Your task to perform on an android device: uninstall "Paramount+ | Peak Streaming" Image 0: 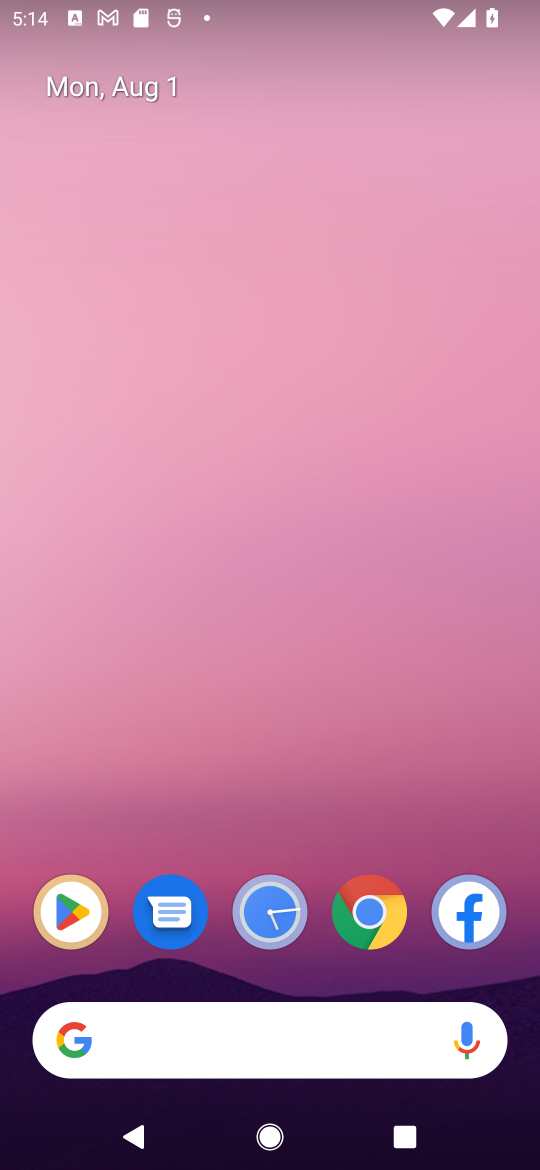
Step 0: click (69, 941)
Your task to perform on an android device: uninstall "Paramount+ | Peak Streaming" Image 1: 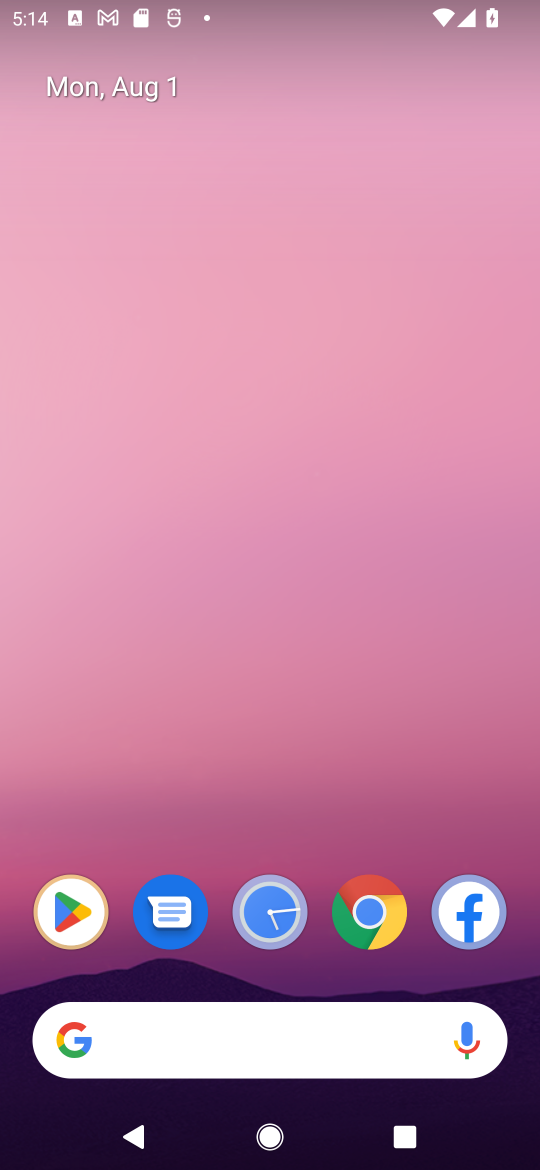
Step 1: click (69, 926)
Your task to perform on an android device: uninstall "Paramount+ | Peak Streaming" Image 2: 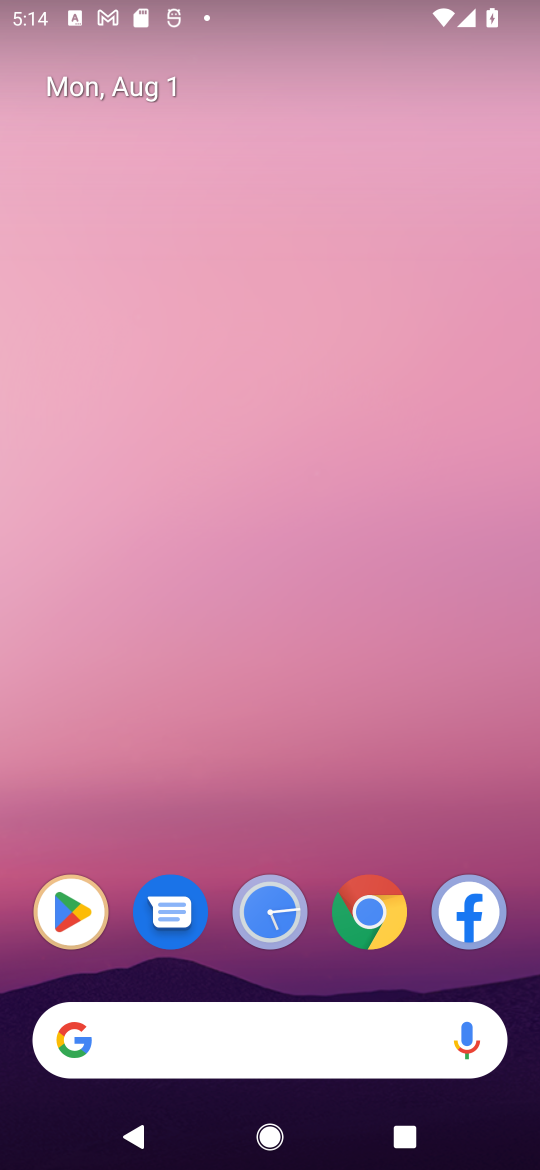
Step 2: click (69, 926)
Your task to perform on an android device: uninstall "Paramount+ | Peak Streaming" Image 3: 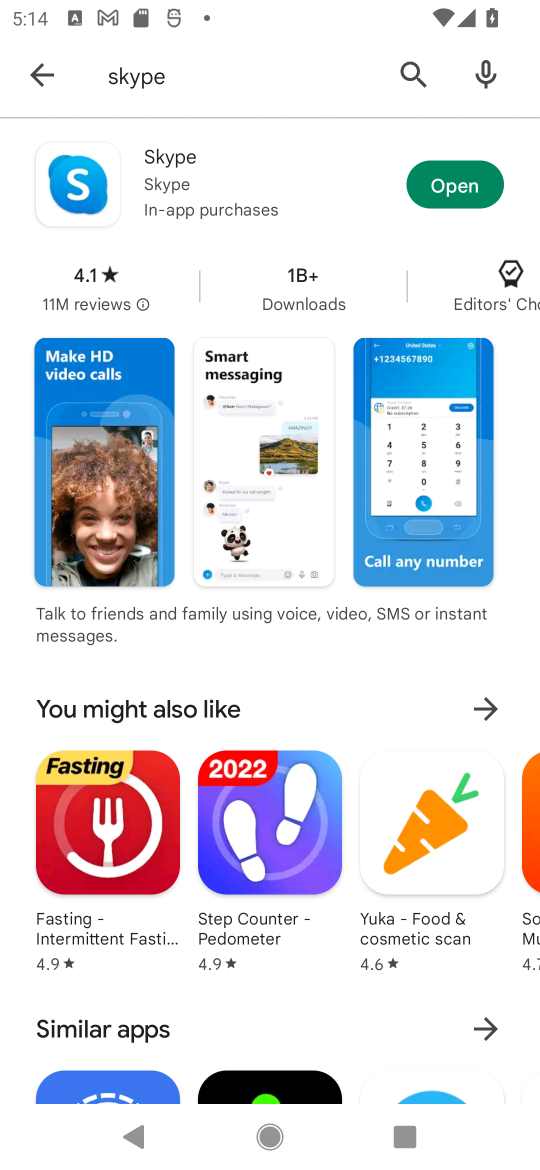
Step 3: click (404, 72)
Your task to perform on an android device: uninstall "Paramount+ | Peak Streaming" Image 4: 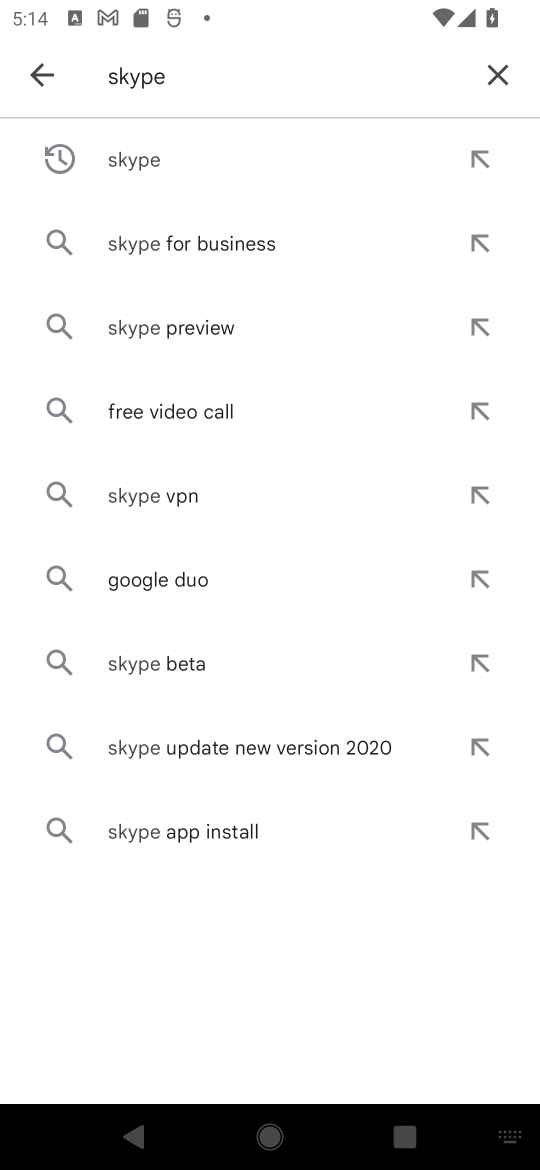
Step 4: click (489, 83)
Your task to perform on an android device: uninstall "Paramount+ | Peak Streaming" Image 5: 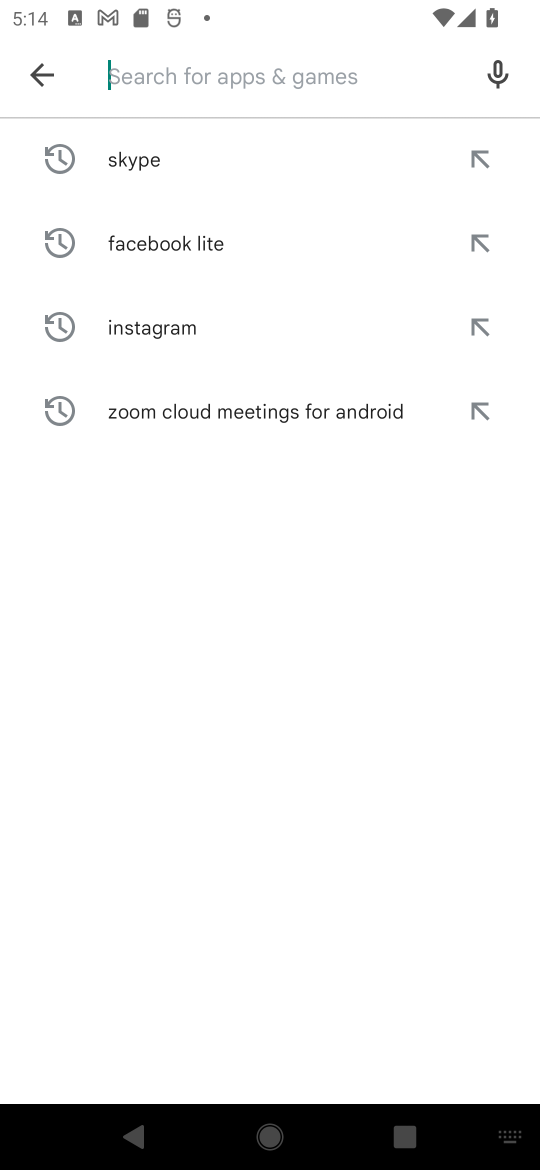
Step 5: type "Paramount+ | Peak Streaming"
Your task to perform on an android device: uninstall "Paramount+ | Peak Streaming" Image 6: 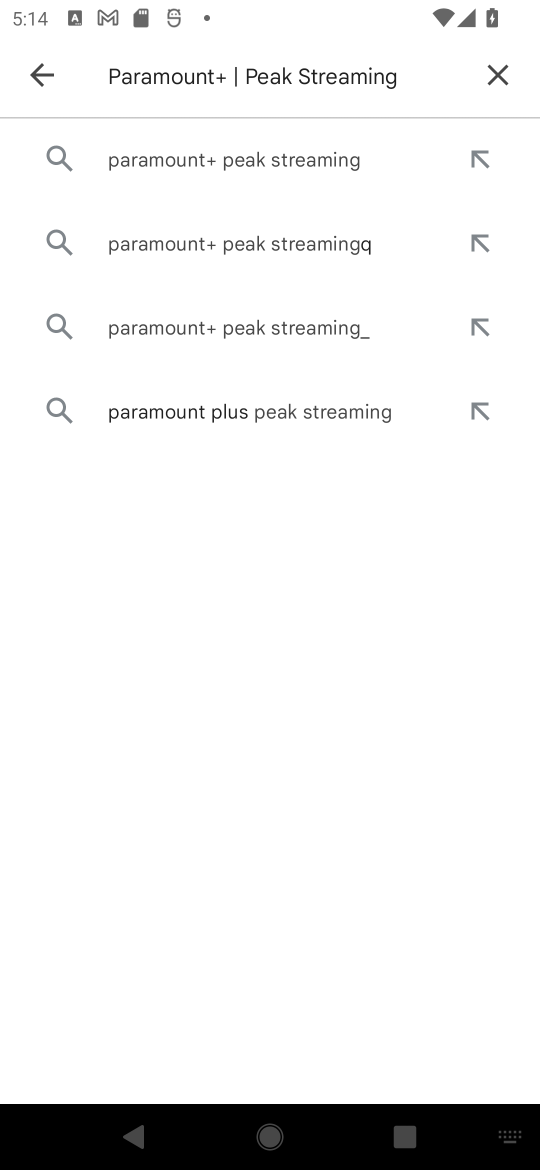
Step 6: click (237, 171)
Your task to perform on an android device: uninstall "Paramount+ | Peak Streaming" Image 7: 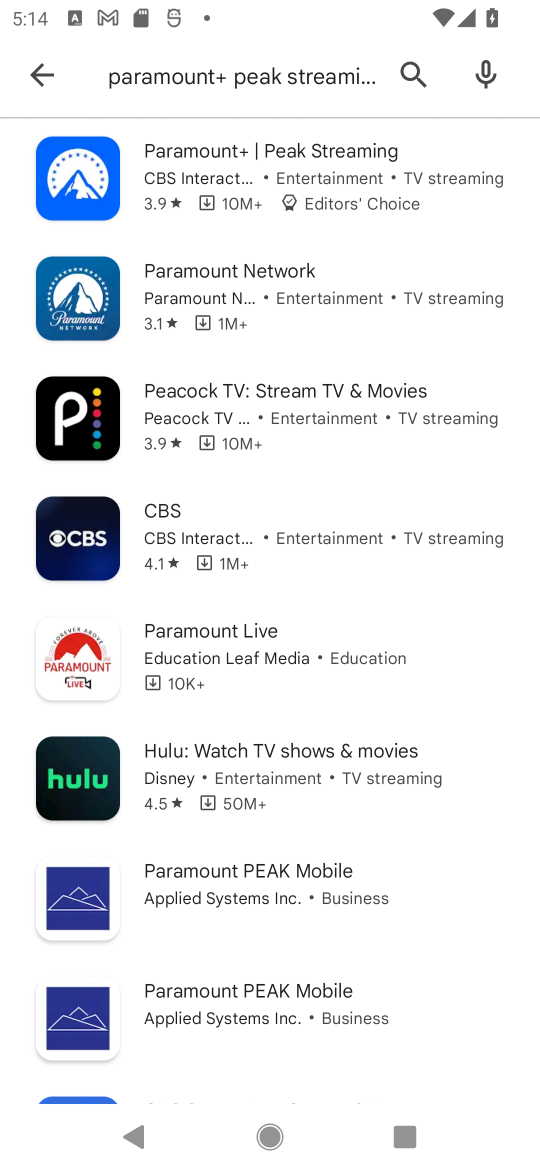
Step 7: click (237, 171)
Your task to perform on an android device: uninstall "Paramount+ | Peak Streaming" Image 8: 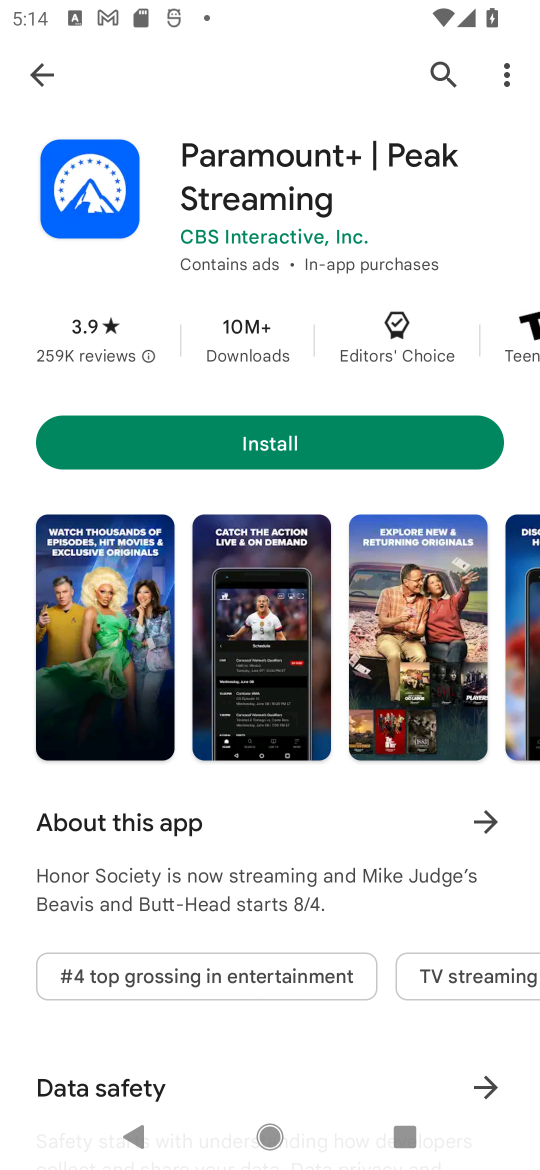
Step 8: task complete